Your task to perform on an android device: Turn on the flashlight Image 0: 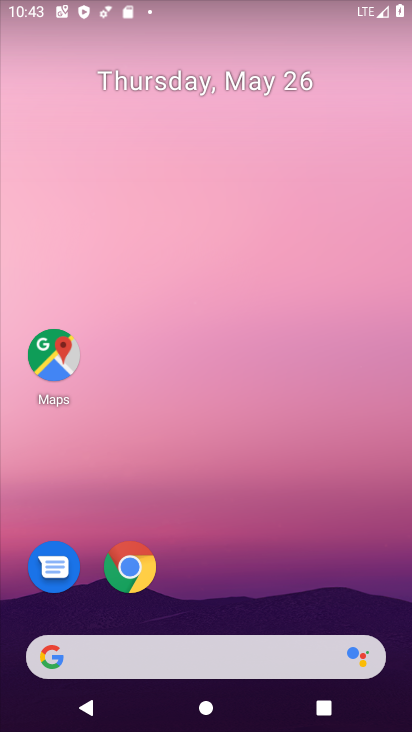
Step 0: drag from (217, 11) to (405, 194)
Your task to perform on an android device: Turn on the flashlight Image 1: 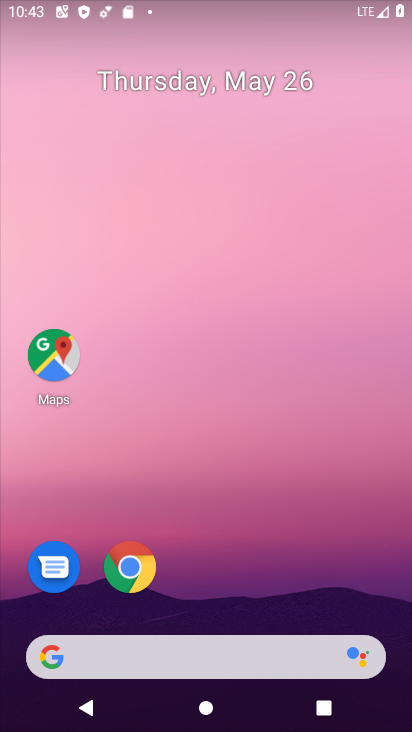
Step 1: task complete